Your task to perform on an android device: Open the phone app and click the voicemail tab. Image 0: 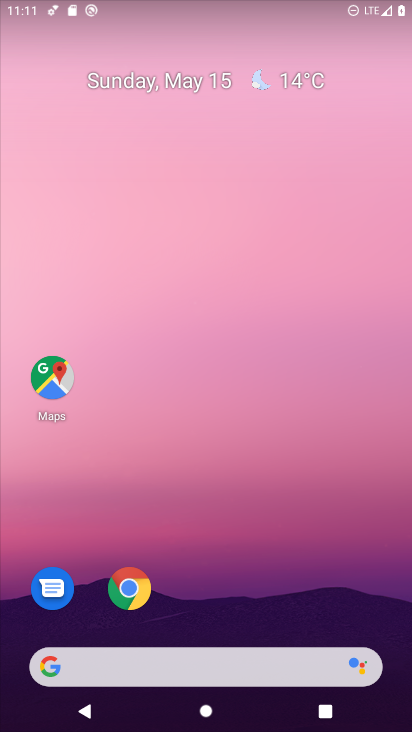
Step 0: drag from (245, 601) to (312, 176)
Your task to perform on an android device: Open the phone app and click the voicemail tab. Image 1: 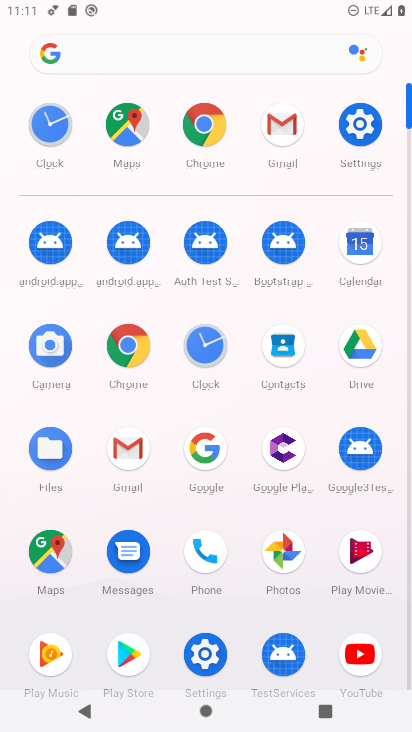
Step 1: click (203, 554)
Your task to perform on an android device: Open the phone app and click the voicemail tab. Image 2: 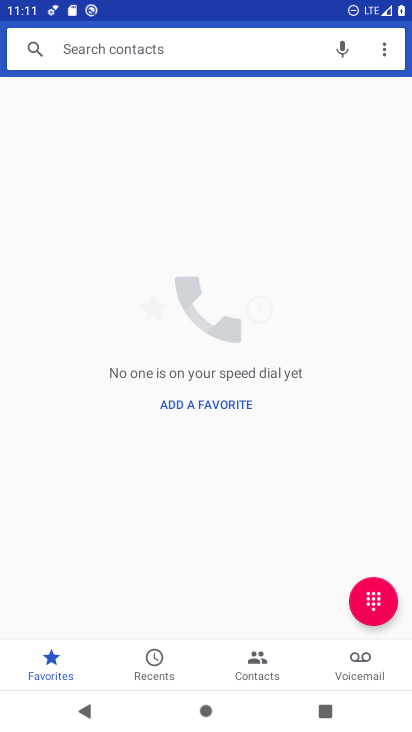
Step 2: click (362, 656)
Your task to perform on an android device: Open the phone app and click the voicemail tab. Image 3: 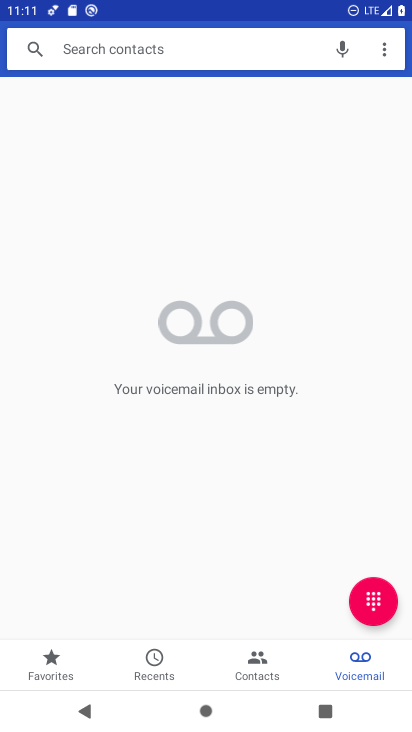
Step 3: task complete